Your task to perform on an android device: turn off location Image 0: 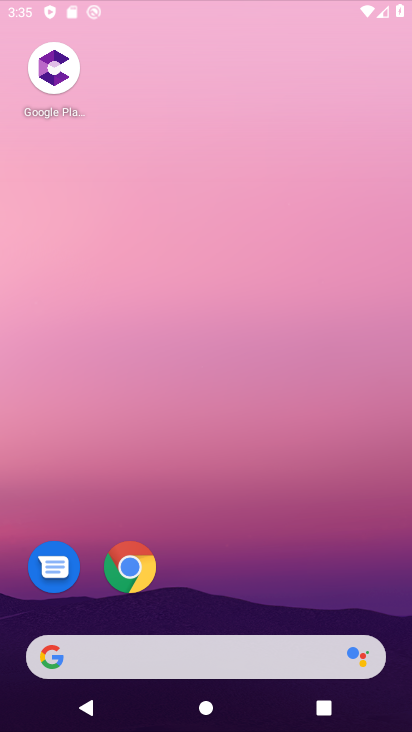
Step 0: click (118, 269)
Your task to perform on an android device: turn off location Image 1: 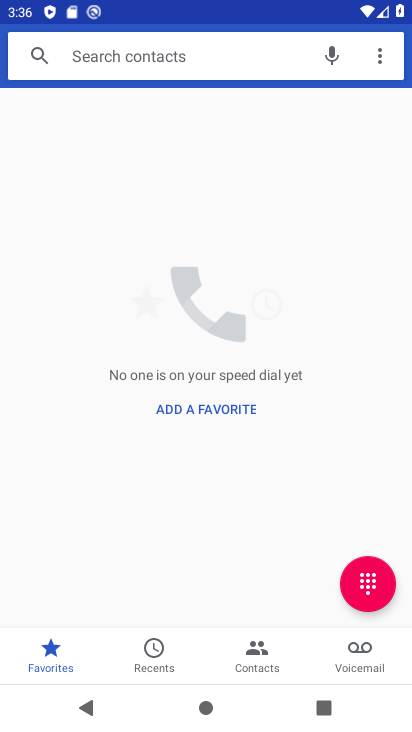
Step 1: press home button
Your task to perform on an android device: turn off location Image 2: 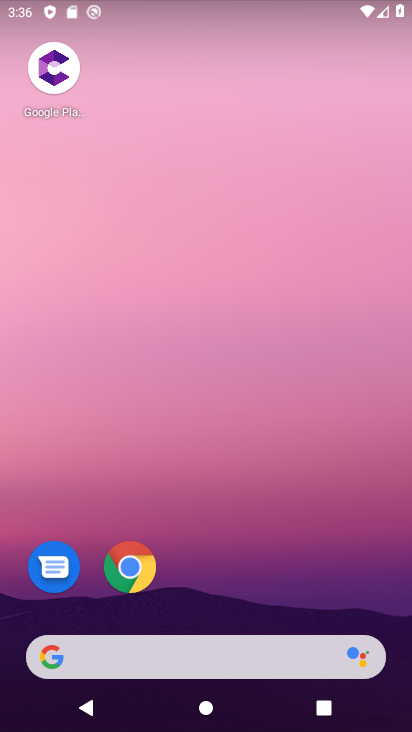
Step 2: drag from (224, 643) to (170, 142)
Your task to perform on an android device: turn off location Image 3: 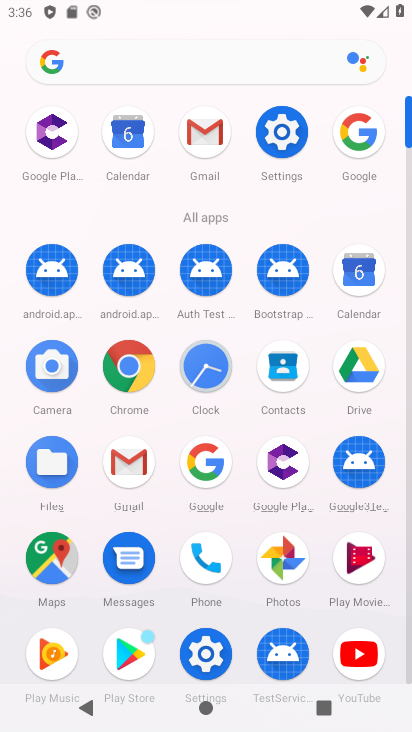
Step 3: click (294, 144)
Your task to perform on an android device: turn off location Image 4: 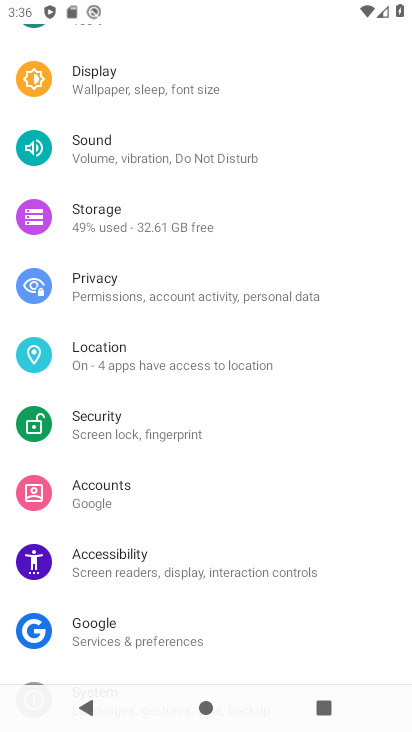
Step 4: click (135, 361)
Your task to perform on an android device: turn off location Image 5: 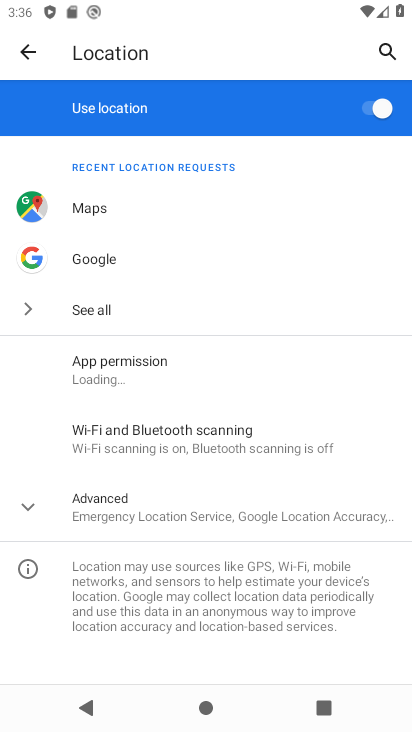
Step 5: click (372, 108)
Your task to perform on an android device: turn off location Image 6: 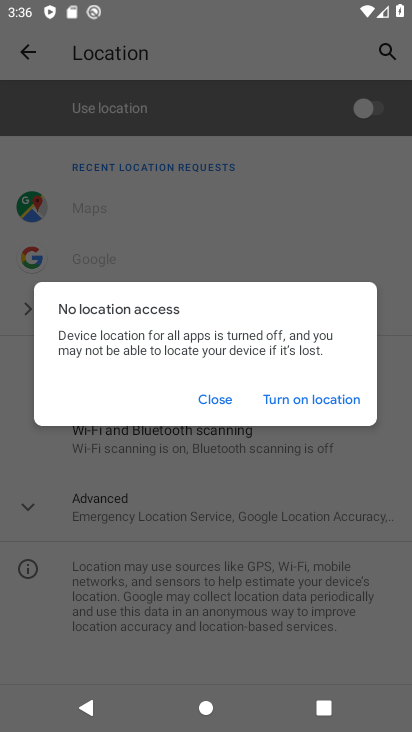
Step 6: click (216, 403)
Your task to perform on an android device: turn off location Image 7: 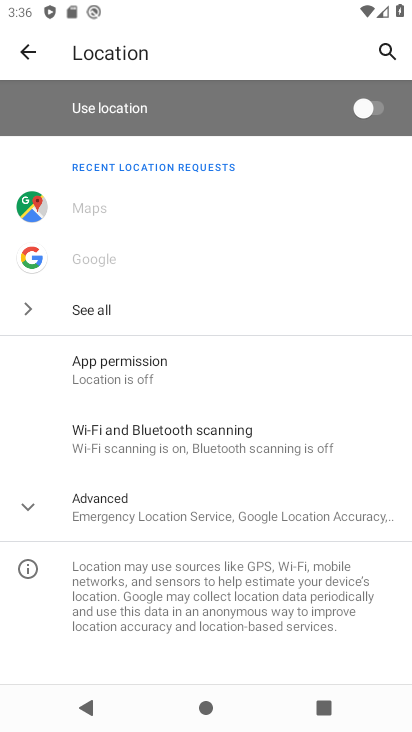
Step 7: task complete